Your task to perform on an android device: Open my contact list Image 0: 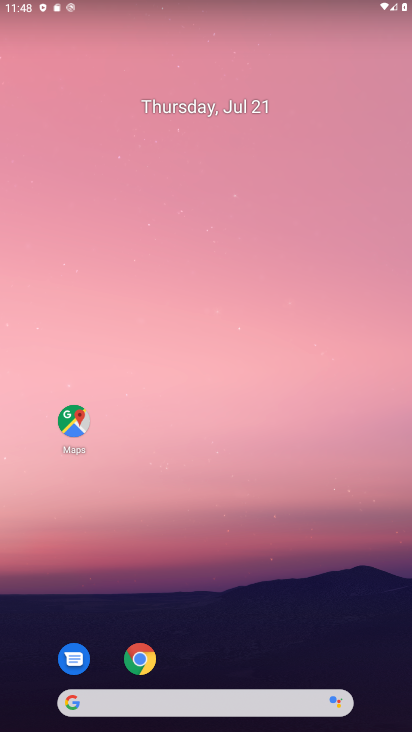
Step 0: drag from (251, 660) to (269, 79)
Your task to perform on an android device: Open my contact list Image 1: 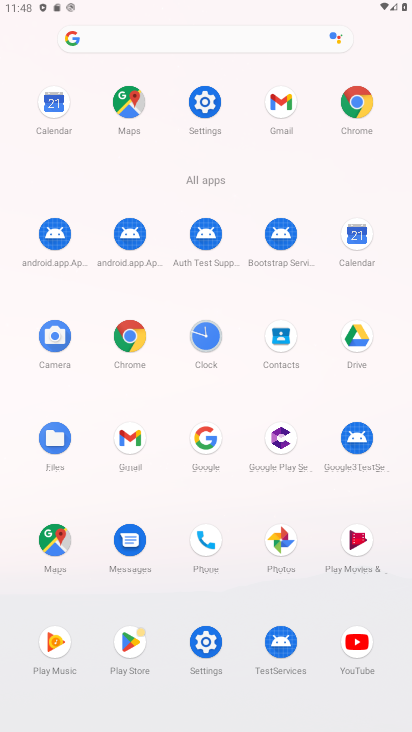
Step 1: click (274, 341)
Your task to perform on an android device: Open my contact list Image 2: 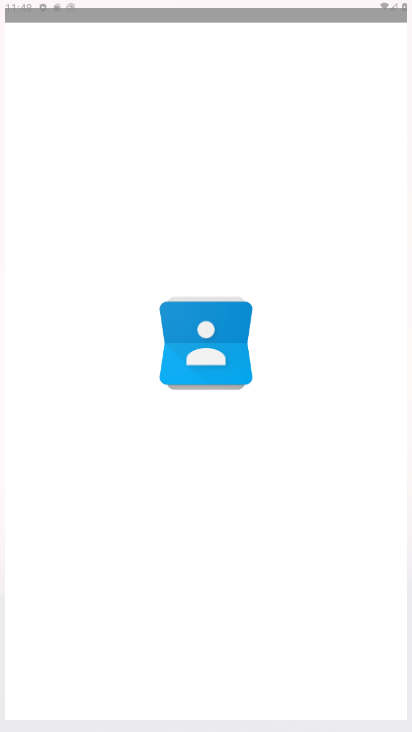
Step 2: task complete